Your task to perform on an android device: check the backup settings in the google photos Image 0: 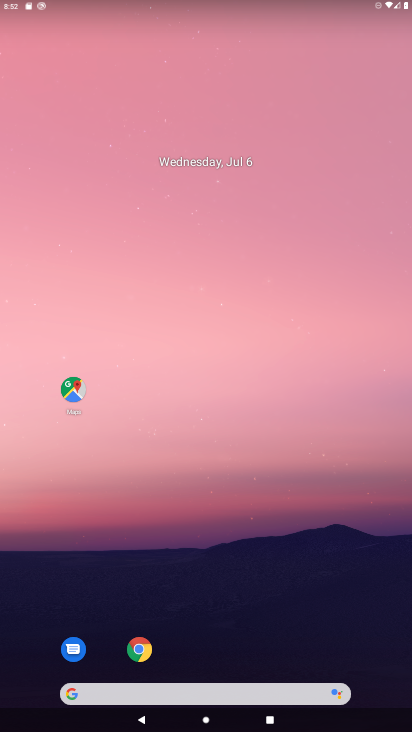
Step 0: drag from (299, 205) to (304, 156)
Your task to perform on an android device: check the backup settings in the google photos Image 1: 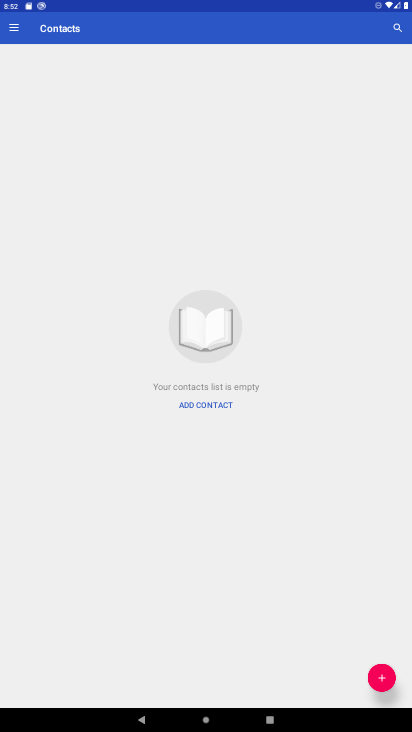
Step 1: press back button
Your task to perform on an android device: check the backup settings in the google photos Image 2: 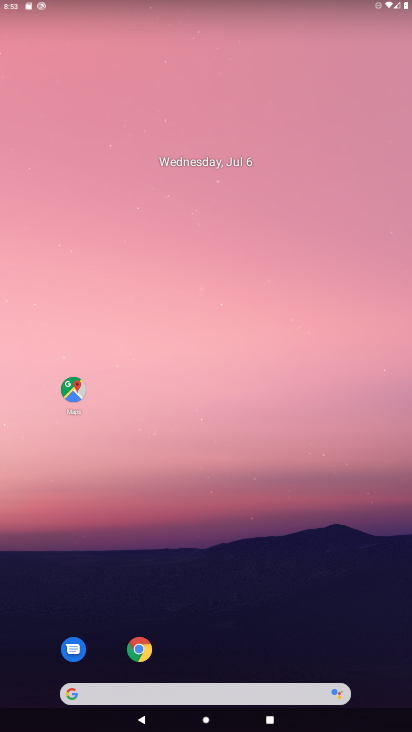
Step 2: drag from (276, 541) to (274, 211)
Your task to perform on an android device: check the backup settings in the google photos Image 3: 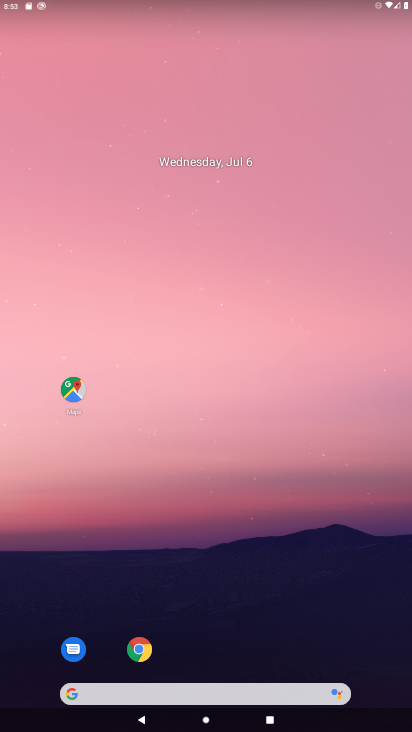
Step 3: drag from (255, 582) to (283, 181)
Your task to perform on an android device: check the backup settings in the google photos Image 4: 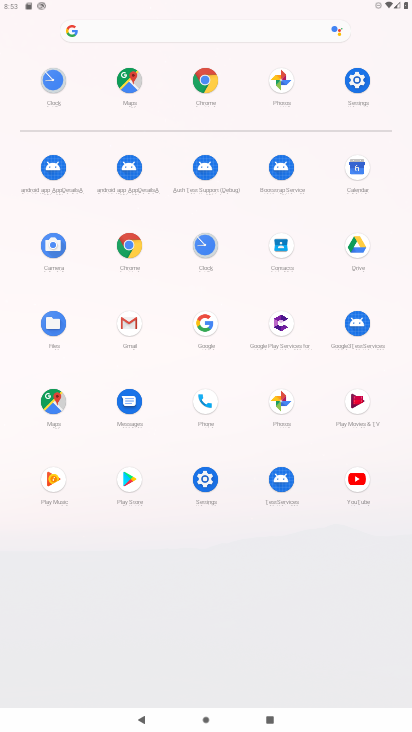
Step 4: click (283, 393)
Your task to perform on an android device: check the backup settings in the google photos Image 5: 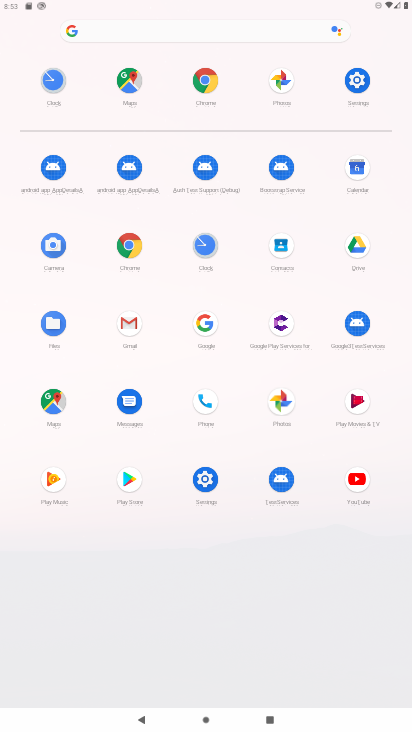
Step 5: click (283, 393)
Your task to perform on an android device: check the backup settings in the google photos Image 6: 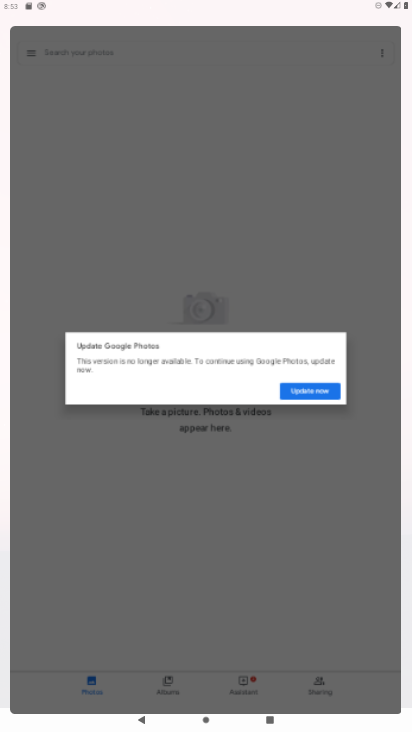
Step 6: click (282, 392)
Your task to perform on an android device: check the backup settings in the google photos Image 7: 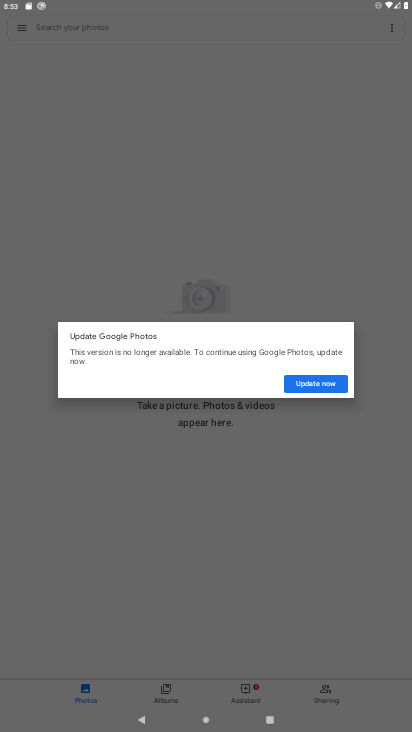
Step 7: click (316, 383)
Your task to perform on an android device: check the backup settings in the google photos Image 8: 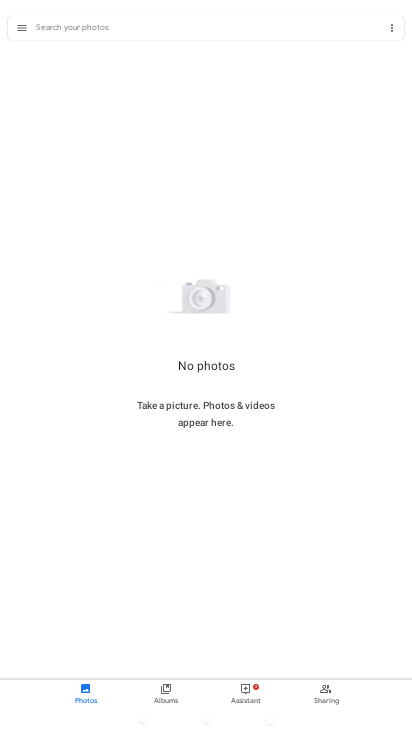
Step 8: click (316, 383)
Your task to perform on an android device: check the backup settings in the google photos Image 9: 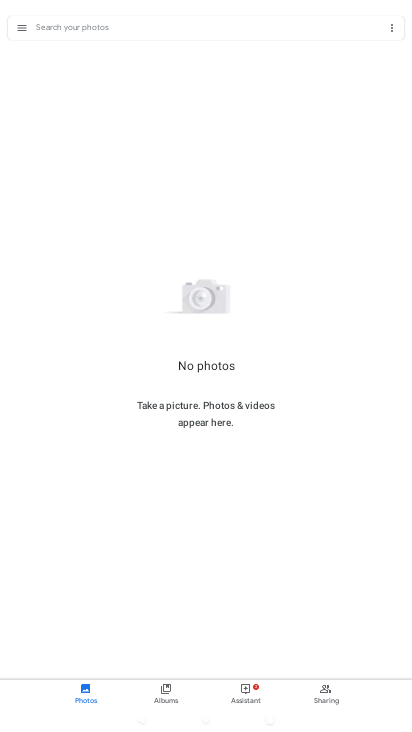
Step 9: click (316, 383)
Your task to perform on an android device: check the backup settings in the google photos Image 10: 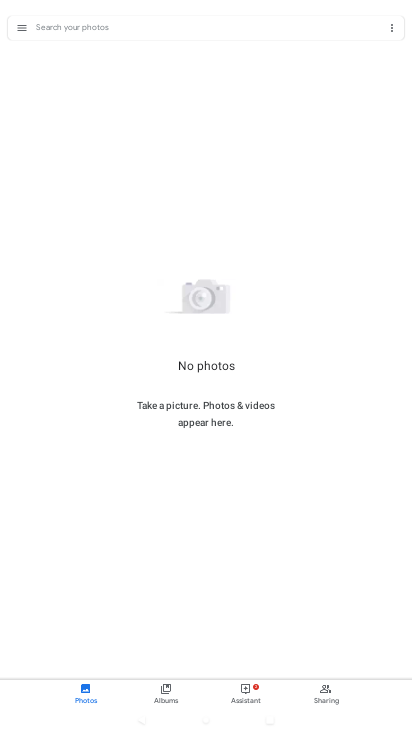
Step 10: click (317, 383)
Your task to perform on an android device: check the backup settings in the google photos Image 11: 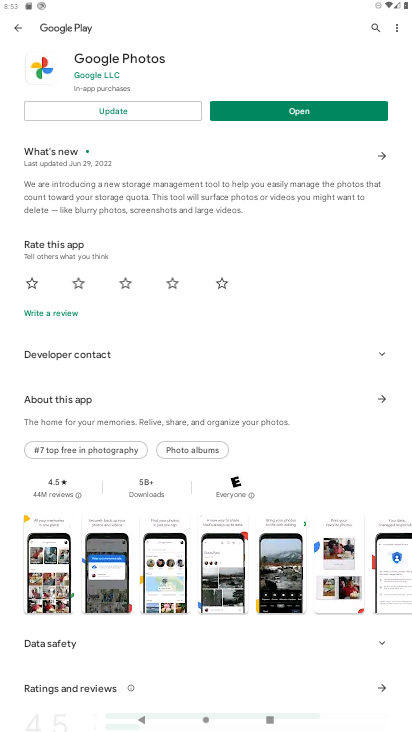
Step 11: click (300, 107)
Your task to perform on an android device: check the backup settings in the google photos Image 12: 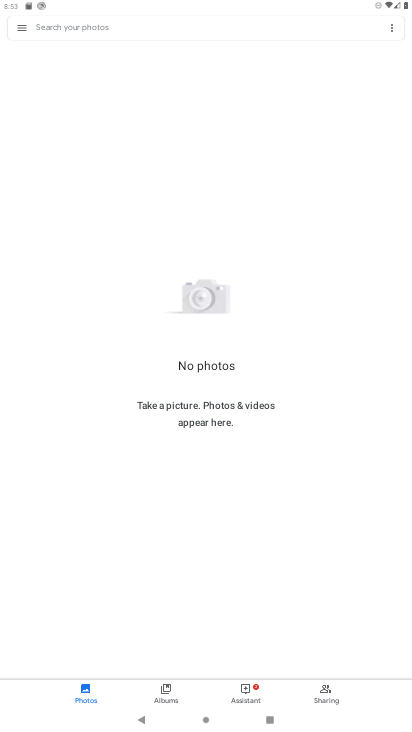
Step 12: click (20, 28)
Your task to perform on an android device: check the backup settings in the google photos Image 13: 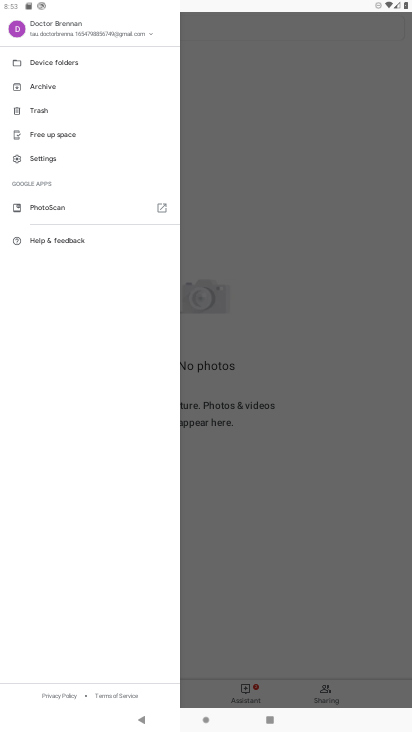
Step 13: click (37, 152)
Your task to perform on an android device: check the backup settings in the google photos Image 14: 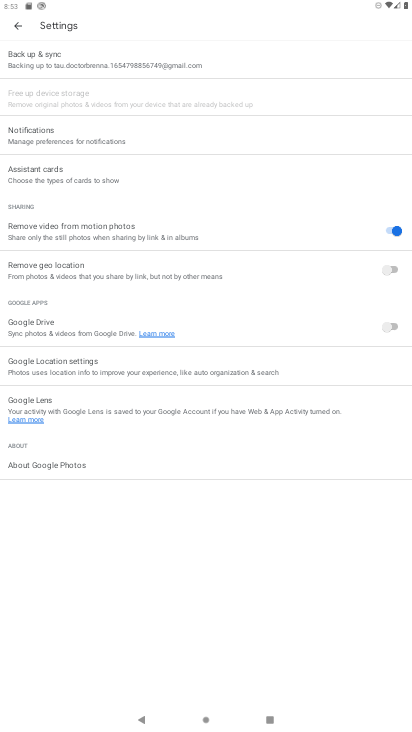
Step 14: click (46, 66)
Your task to perform on an android device: check the backup settings in the google photos Image 15: 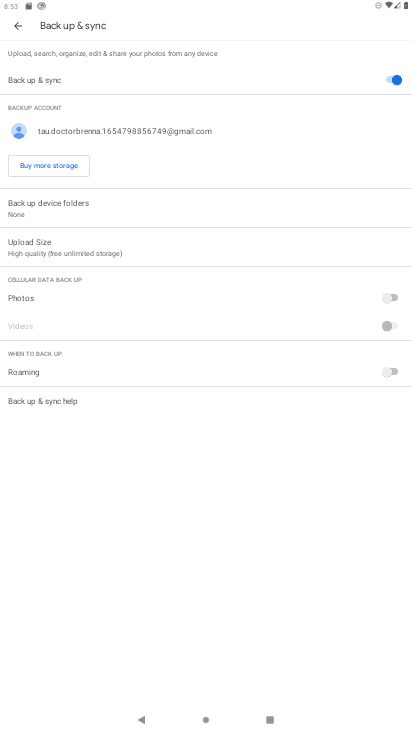
Step 15: click (103, 214)
Your task to perform on an android device: check the backup settings in the google photos Image 16: 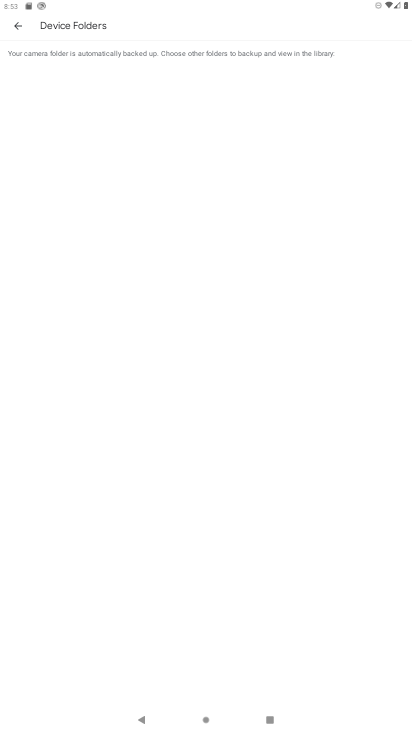
Step 16: task complete